Your task to perform on an android device: choose inbox layout in the gmail app Image 0: 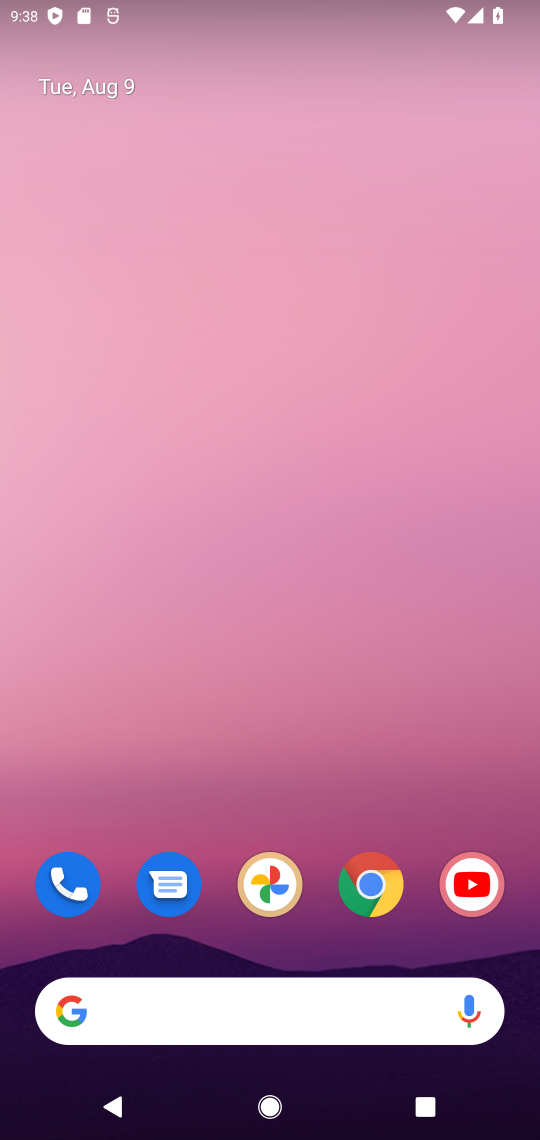
Step 0: drag from (221, 1010) to (279, 190)
Your task to perform on an android device: choose inbox layout in the gmail app Image 1: 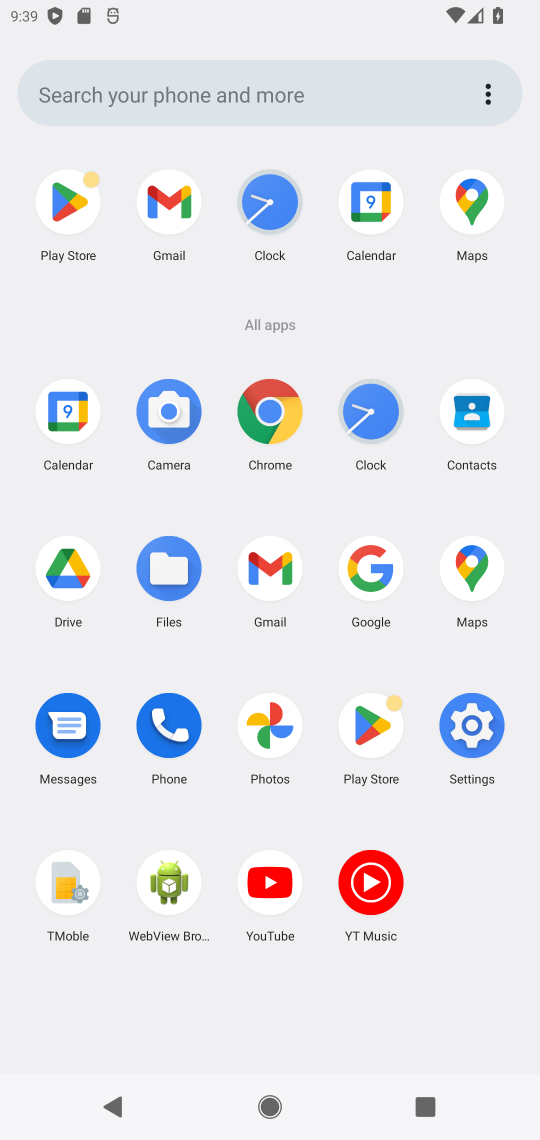
Step 1: click (271, 569)
Your task to perform on an android device: choose inbox layout in the gmail app Image 2: 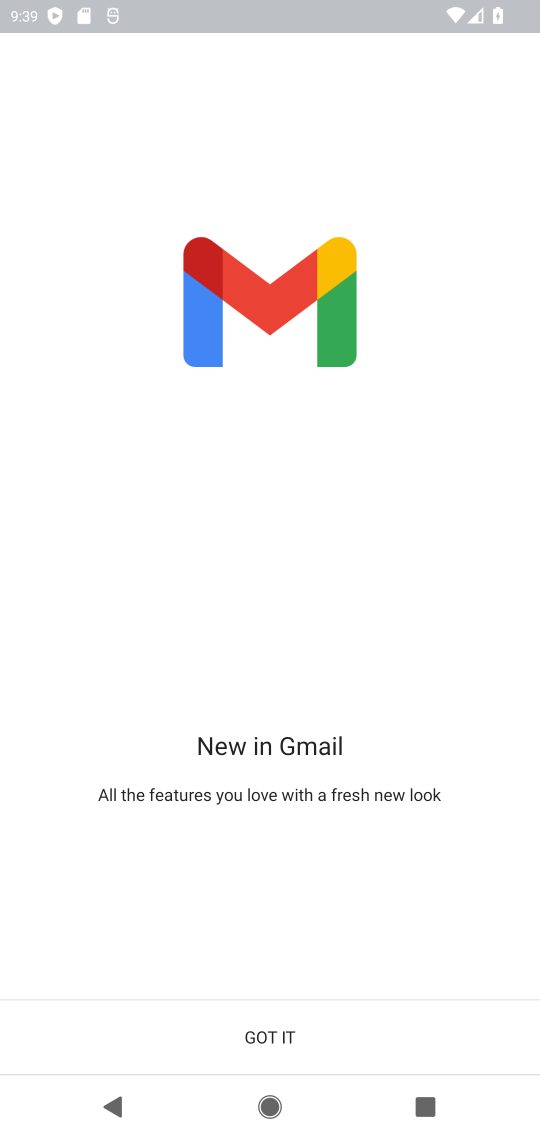
Step 2: click (284, 1038)
Your task to perform on an android device: choose inbox layout in the gmail app Image 3: 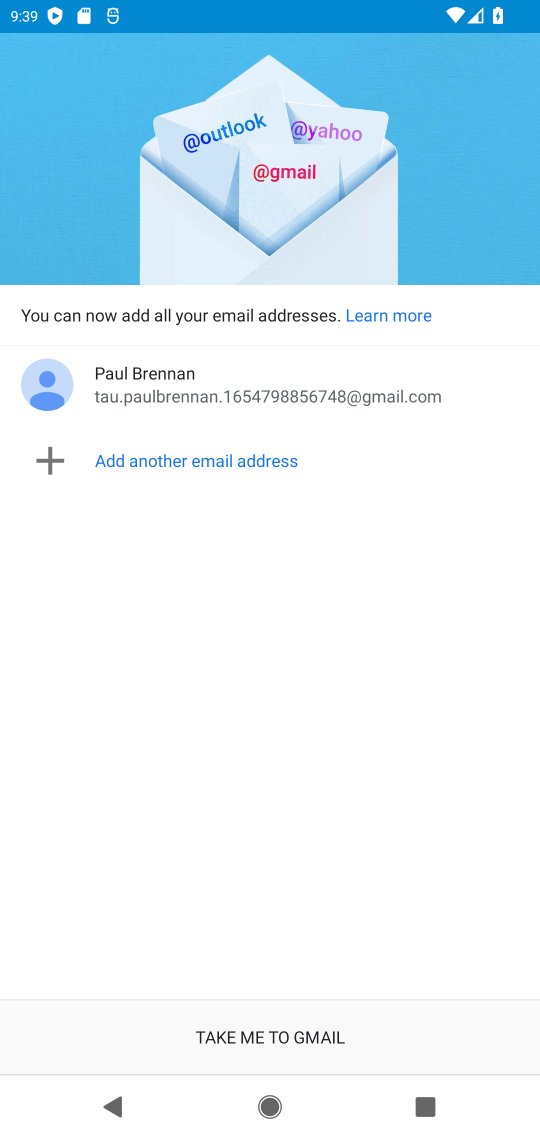
Step 3: click (284, 1038)
Your task to perform on an android device: choose inbox layout in the gmail app Image 4: 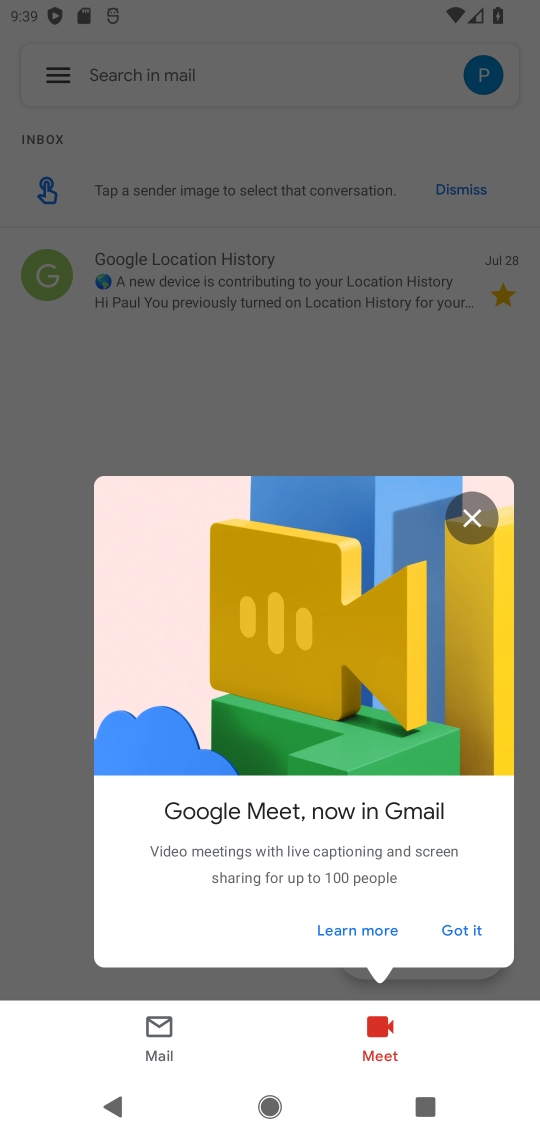
Step 4: click (476, 932)
Your task to perform on an android device: choose inbox layout in the gmail app Image 5: 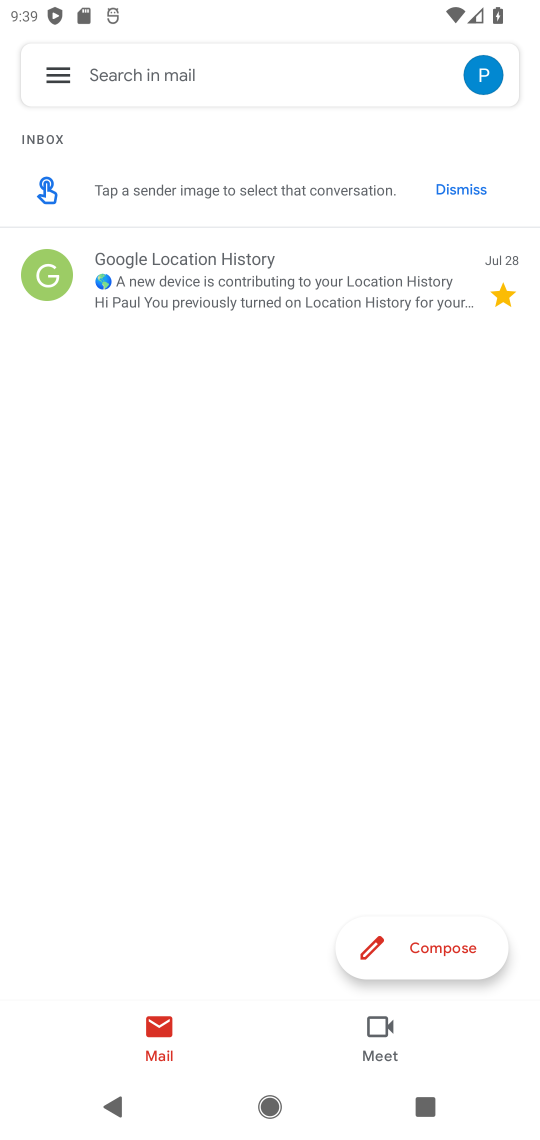
Step 5: click (63, 75)
Your task to perform on an android device: choose inbox layout in the gmail app Image 6: 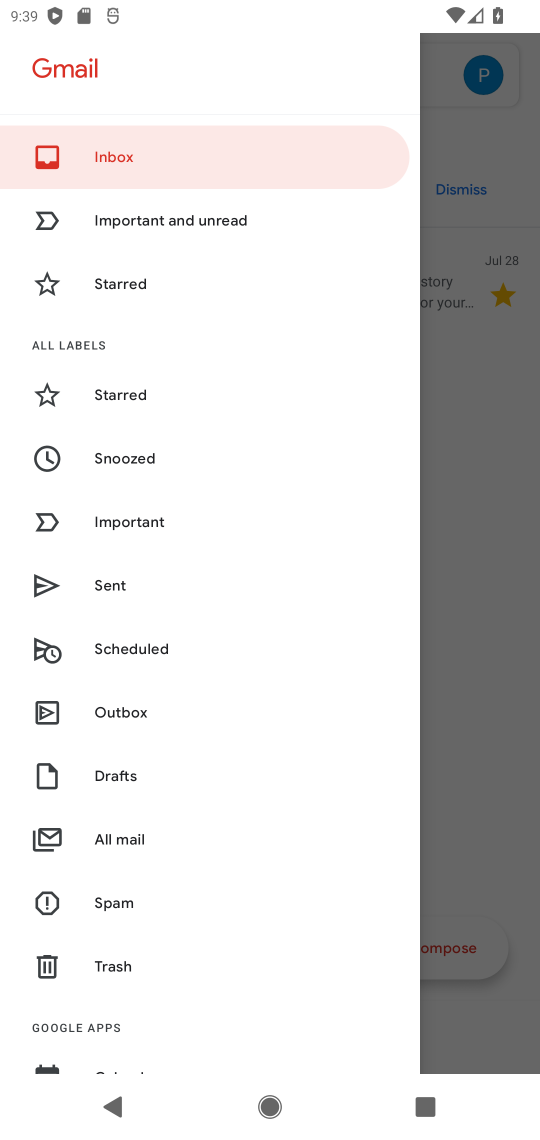
Step 6: drag from (176, 916) to (303, 611)
Your task to perform on an android device: choose inbox layout in the gmail app Image 7: 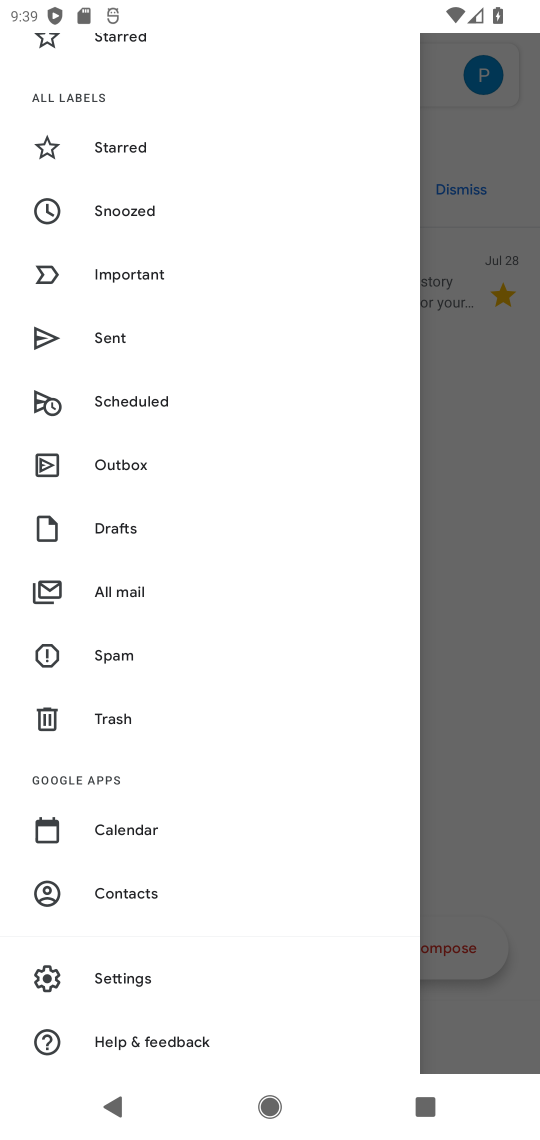
Step 7: click (134, 981)
Your task to perform on an android device: choose inbox layout in the gmail app Image 8: 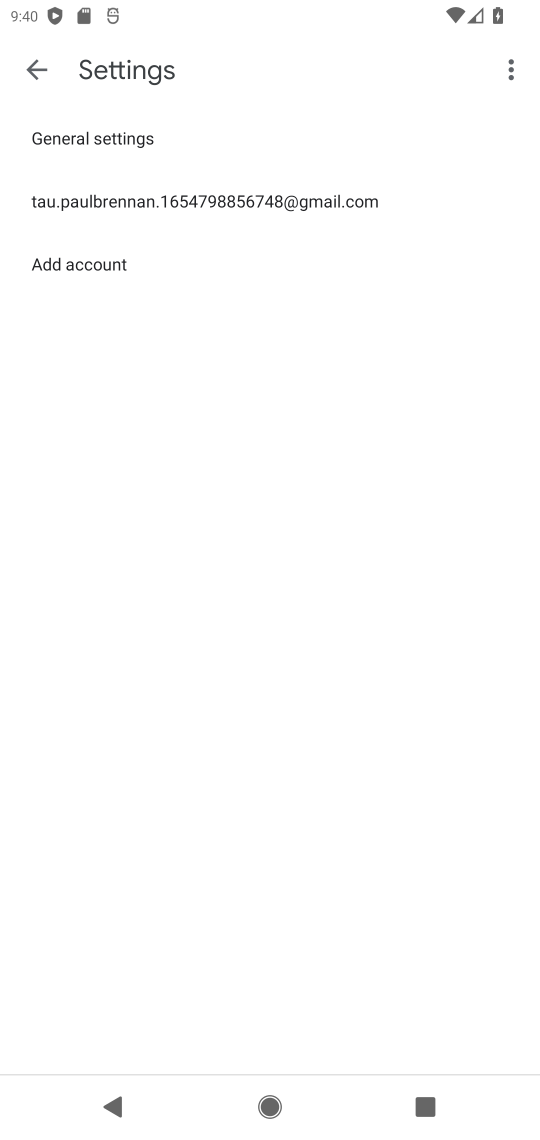
Step 8: click (285, 197)
Your task to perform on an android device: choose inbox layout in the gmail app Image 9: 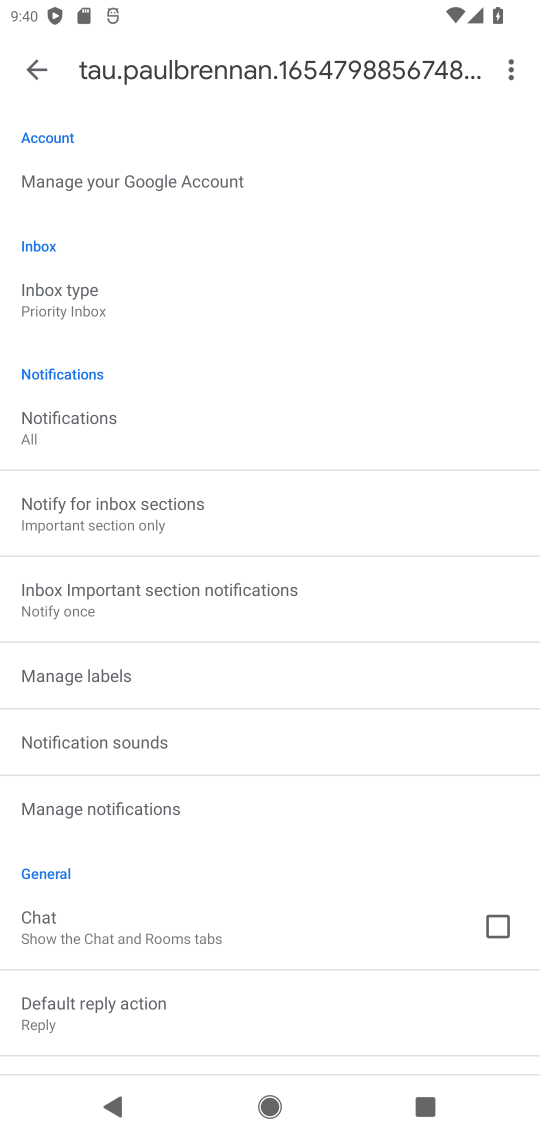
Step 9: click (83, 305)
Your task to perform on an android device: choose inbox layout in the gmail app Image 10: 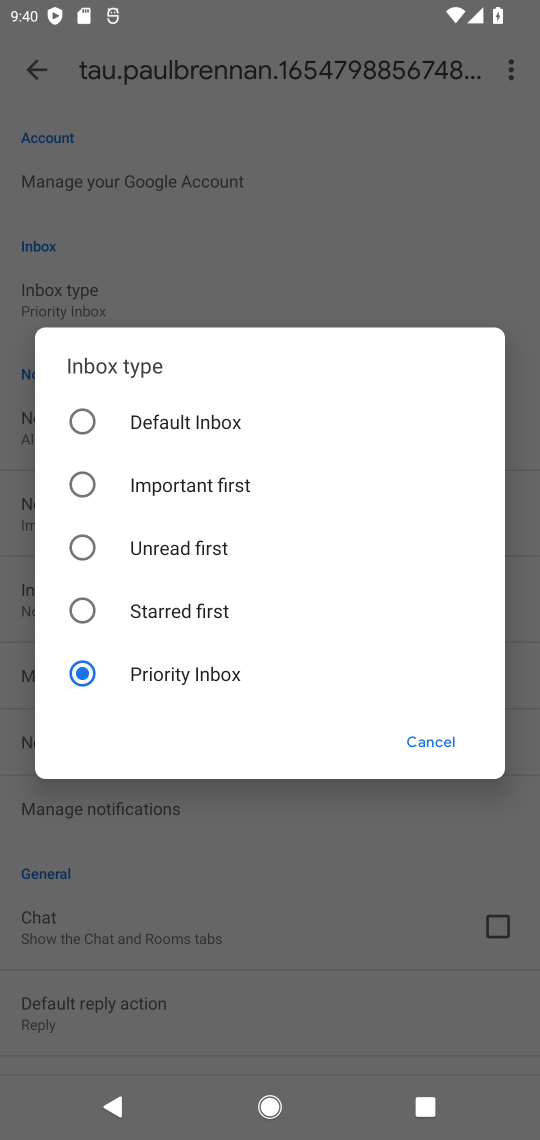
Step 10: click (83, 605)
Your task to perform on an android device: choose inbox layout in the gmail app Image 11: 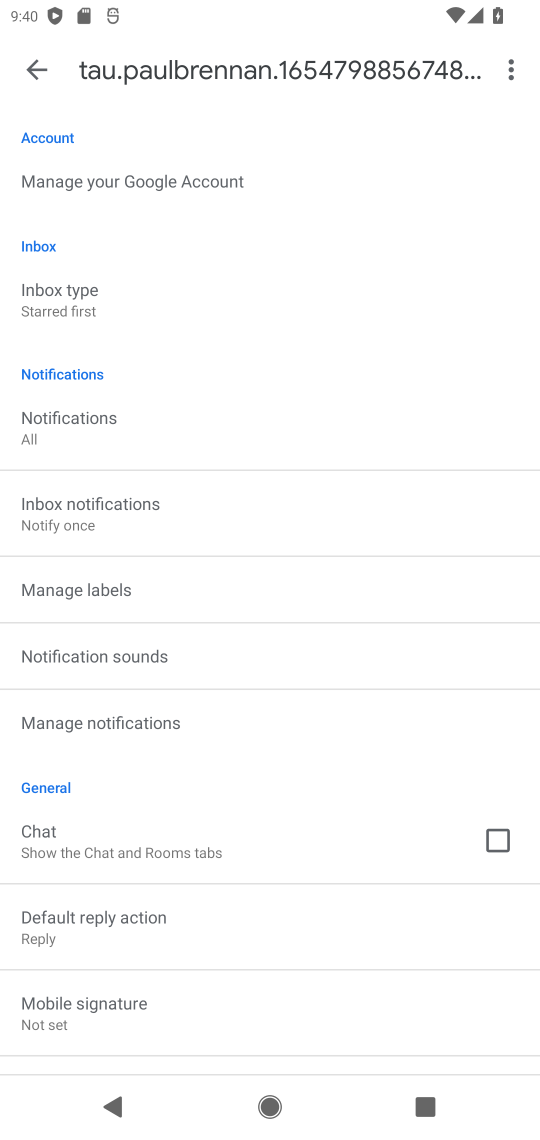
Step 11: task complete